Your task to perform on an android device: open wifi settings Image 0: 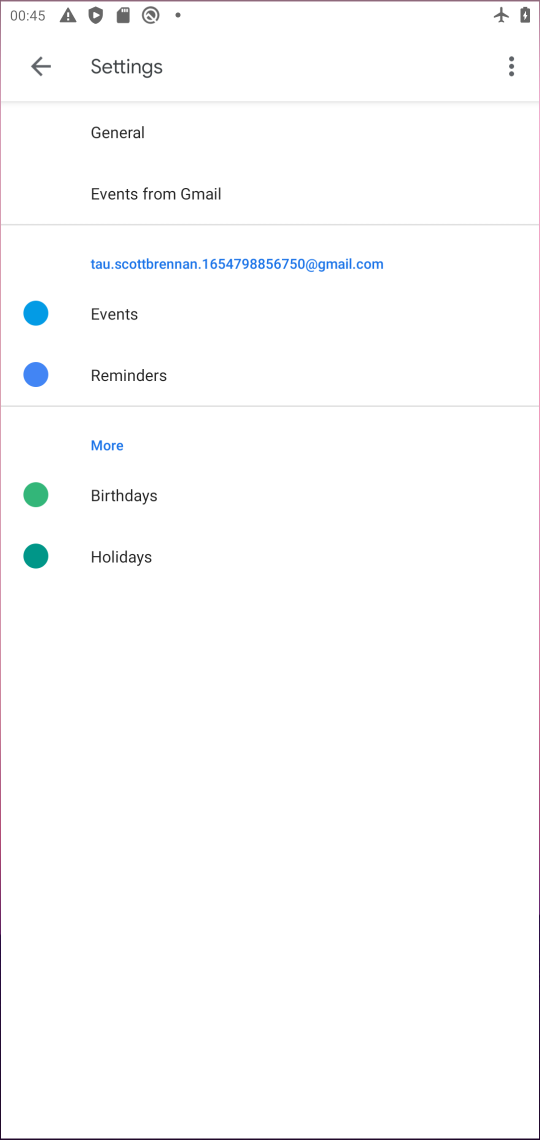
Step 0: press home button
Your task to perform on an android device: open wifi settings Image 1: 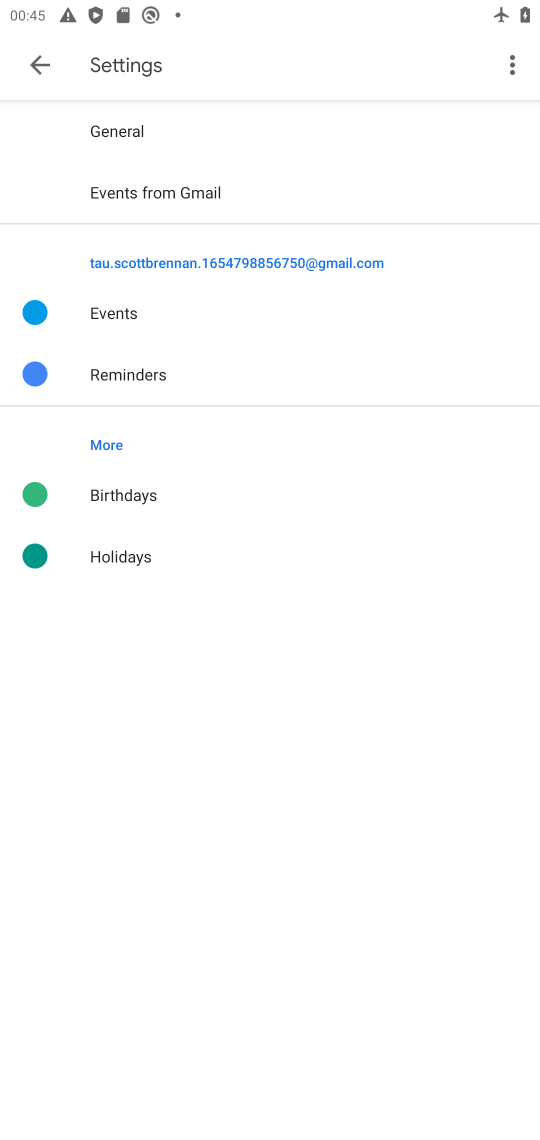
Step 1: press home button
Your task to perform on an android device: open wifi settings Image 2: 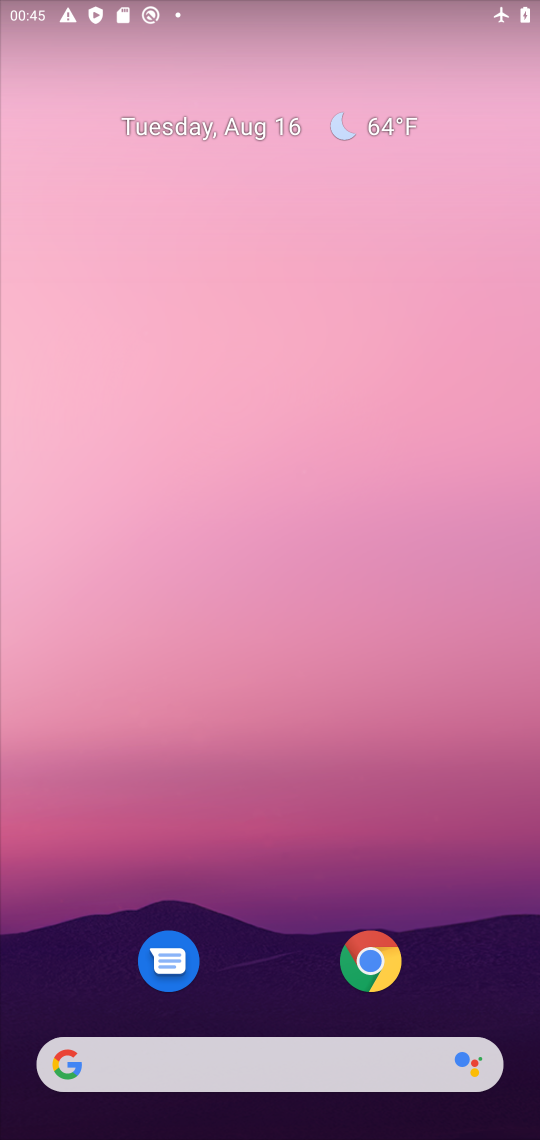
Step 2: press home button
Your task to perform on an android device: open wifi settings Image 3: 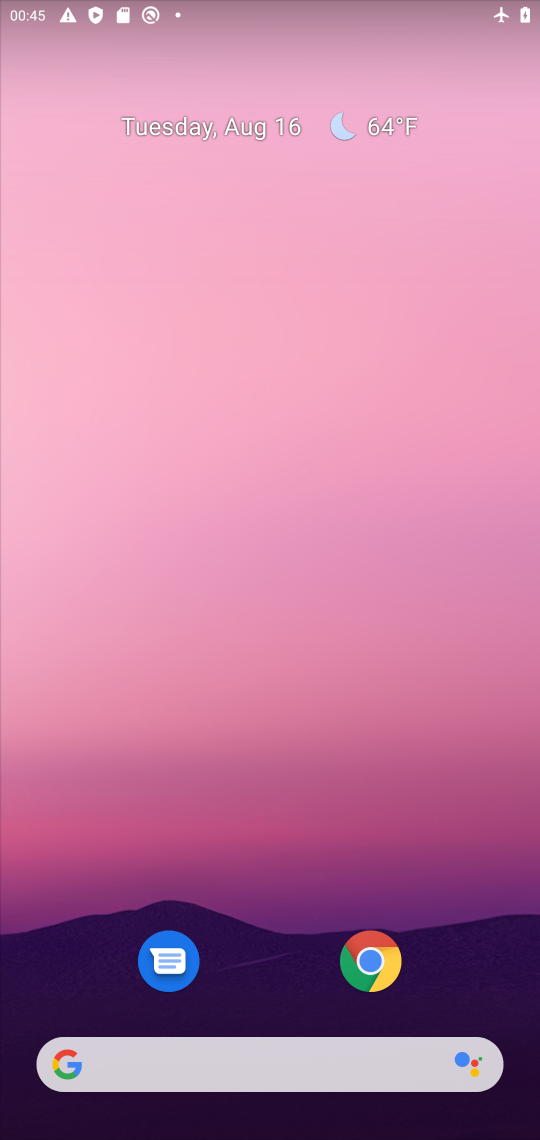
Step 3: press home button
Your task to perform on an android device: open wifi settings Image 4: 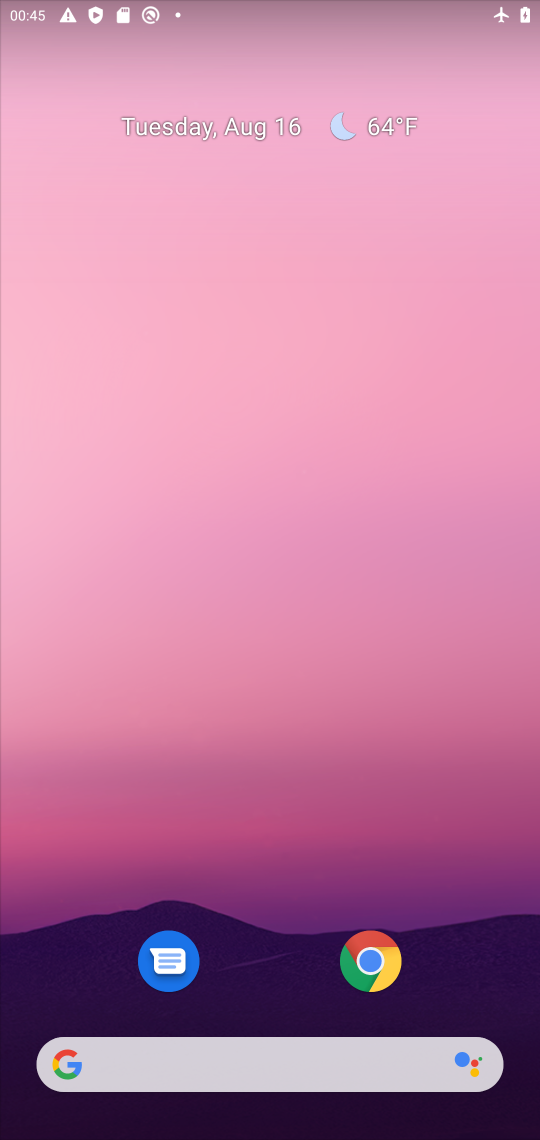
Step 4: drag from (235, 930) to (211, 456)
Your task to perform on an android device: open wifi settings Image 5: 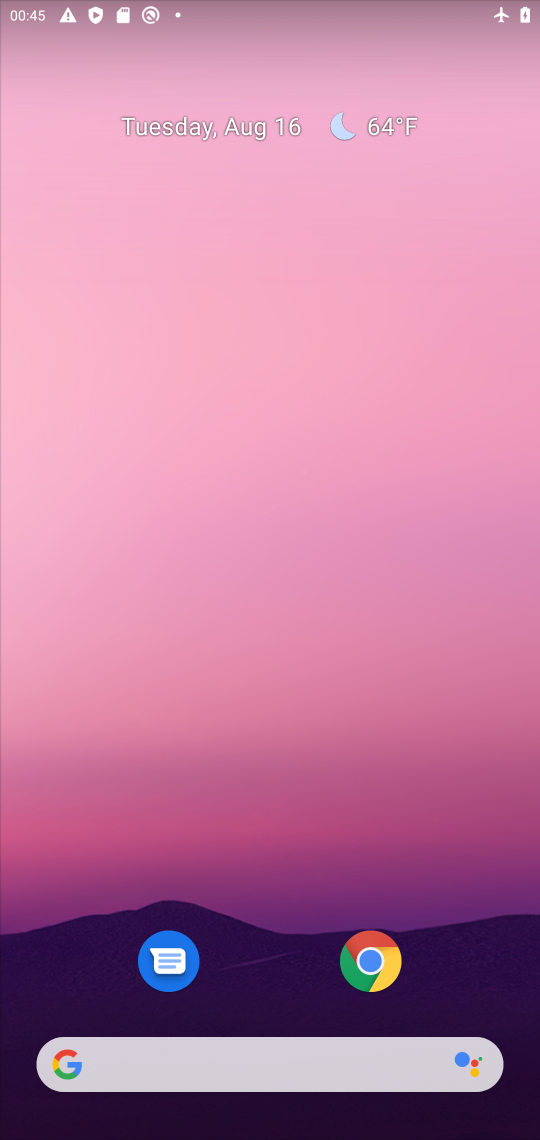
Step 5: drag from (249, 968) to (252, 0)
Your task to perform on an android device: open wifi settings Image 6: 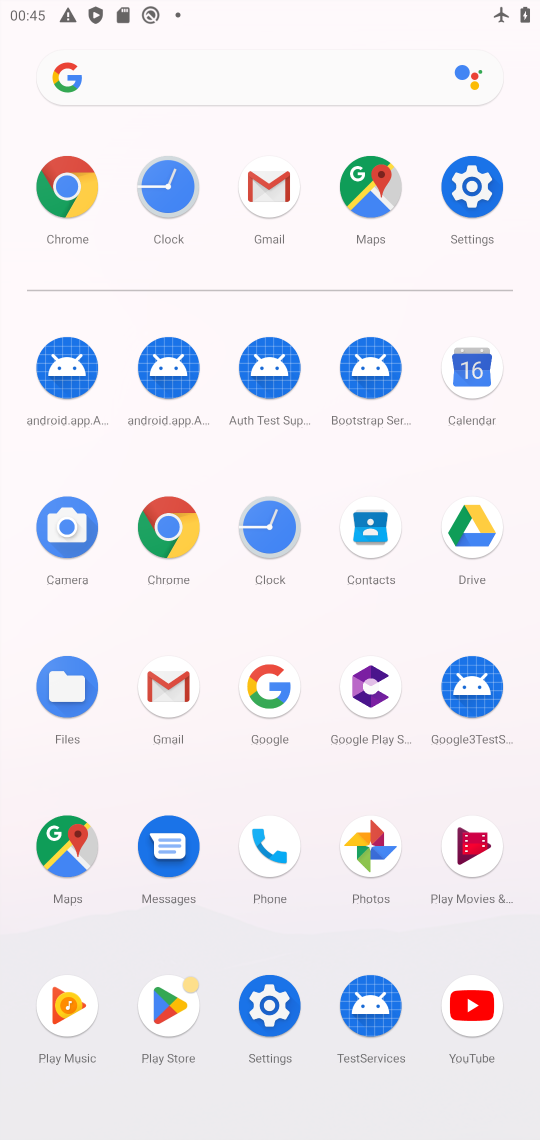
Step 6: drag from (278, 70) to (218, 1129)
Your task to perform on an android device: open wifi settings Image 7: 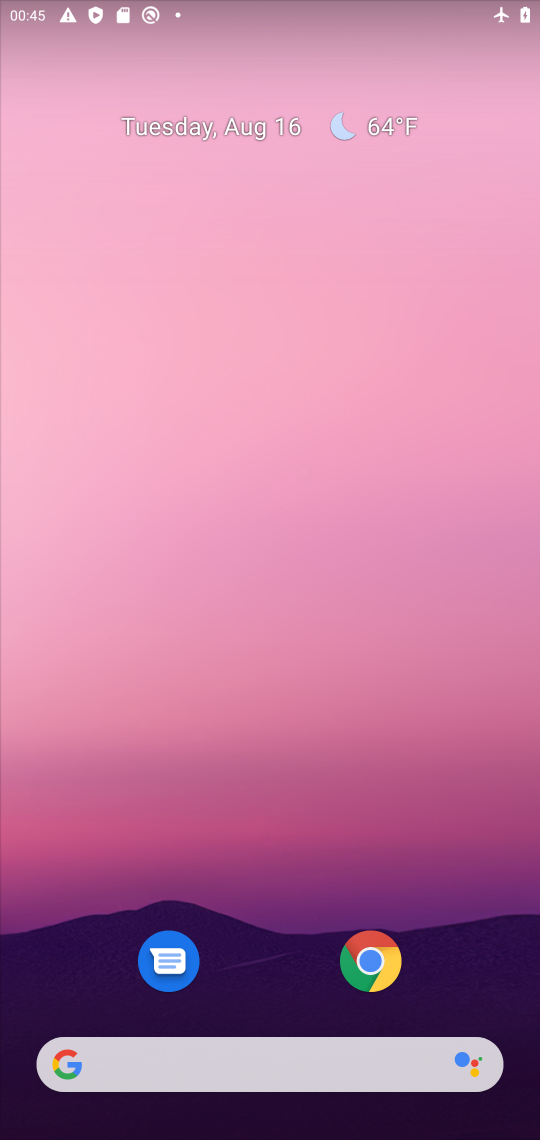
Step 7: click (246, 702)
Your task to perform on an android device: open wifi settings Image 8: 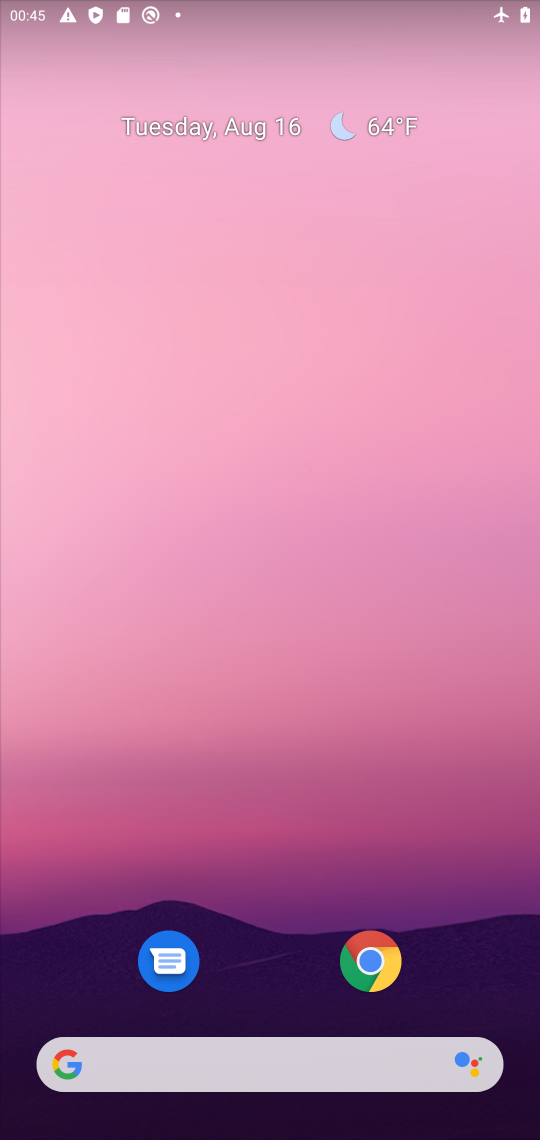
Step 8: drag from (251, 98) to (363, 1112)
Your task to perform on an android device: open wifi settings Image 9: 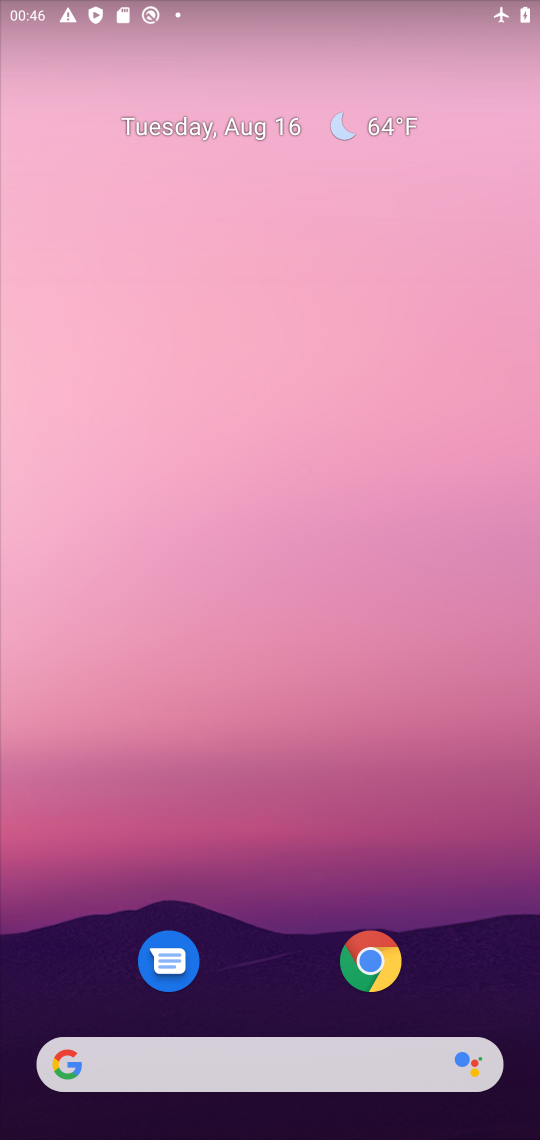
Step 9: drag from (365, 6) to (387, 886)
Your task to perform on an android device: open wifi settings Image 10: 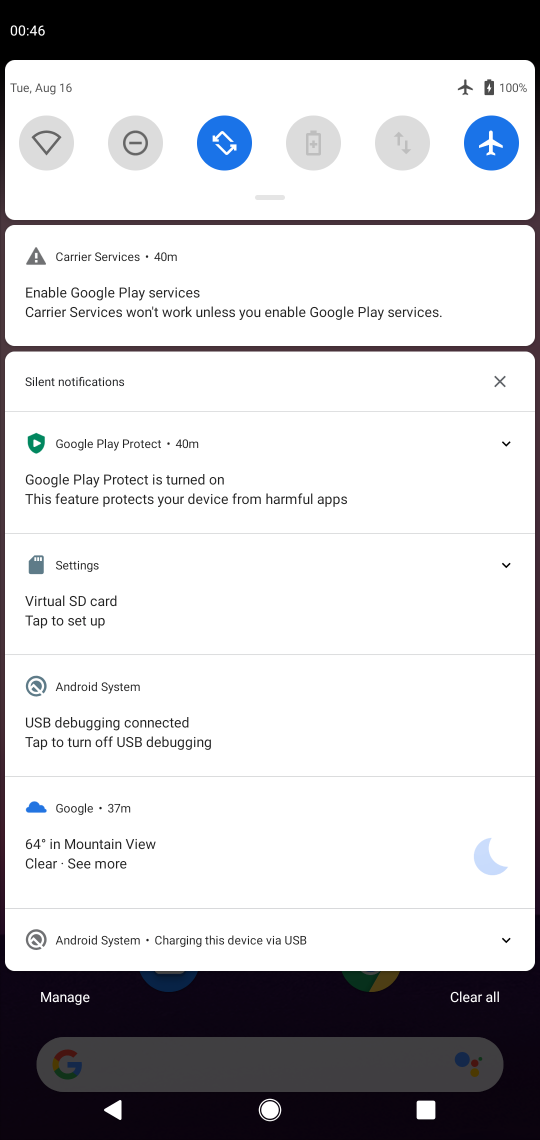
Step 10: click (51, 143)
Your task to perform on an android device: open wifi settings Image 11: 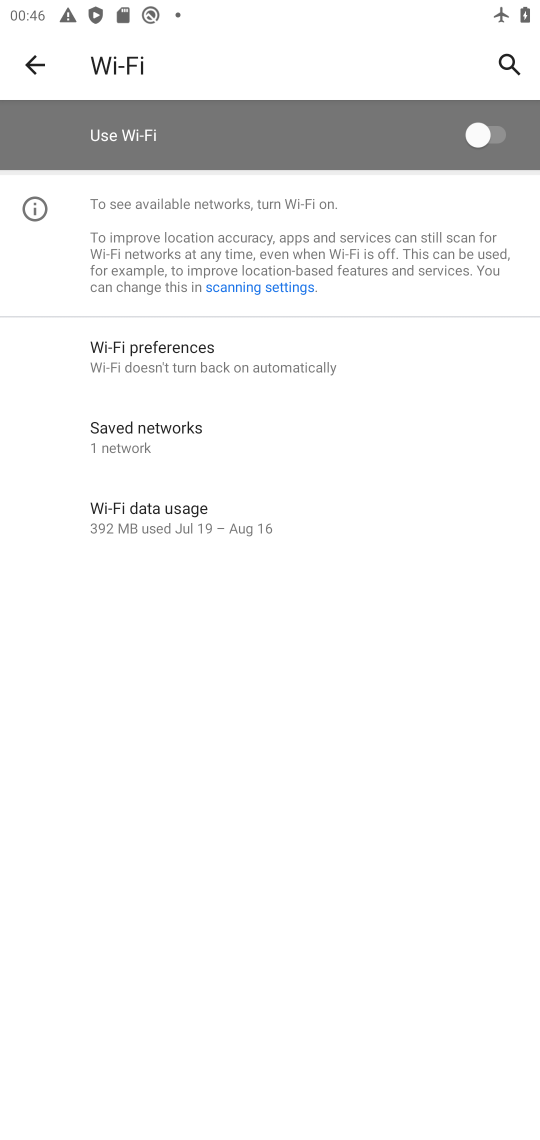
Step 11: task complete